Your task to perform on an android device: Show me the alarms in the clock app Image 0: 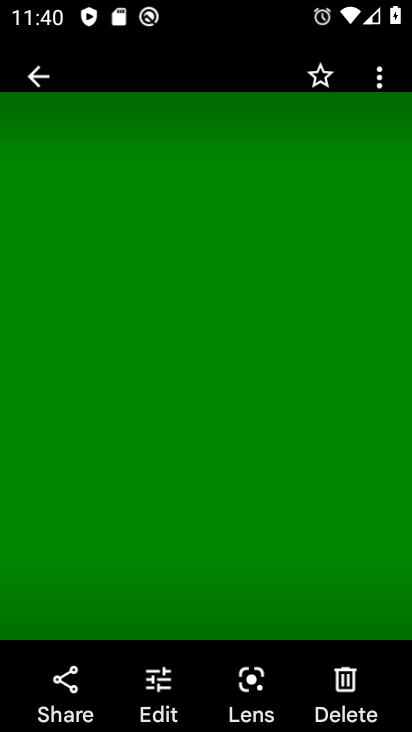
Step 0: press home button
Your task to perform on an android device: Show me the alarms in the clock app Image 1: 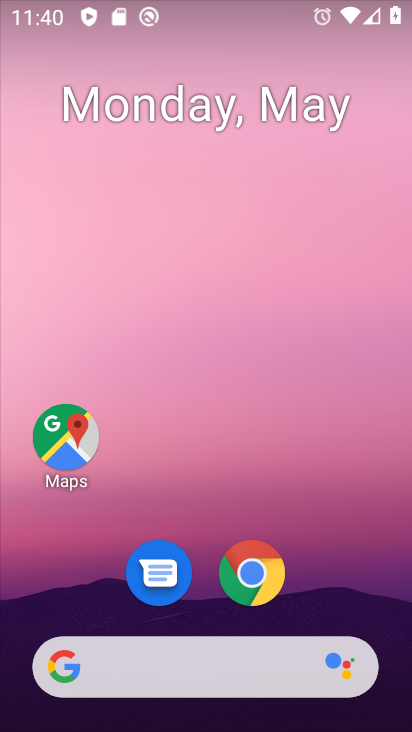
Step 1: drag from (140, 703) to (234, 40)
Your task to perform on an android device: Show me the alarms in the clock app Image 2: 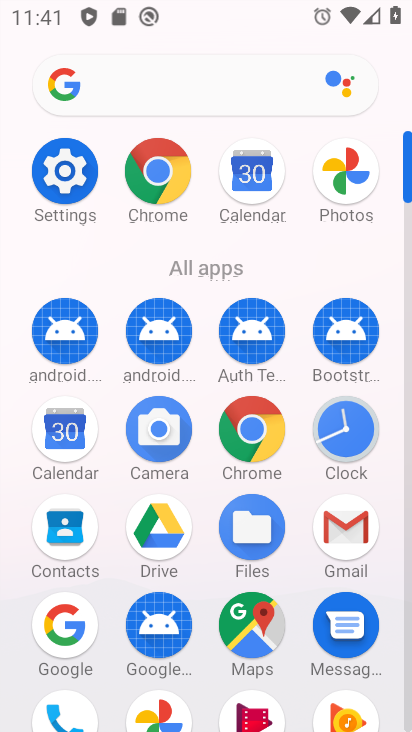
Step 2: click (336, 440)
Your task to perform on an android device: Show me the alarms in the clock app Image 3: 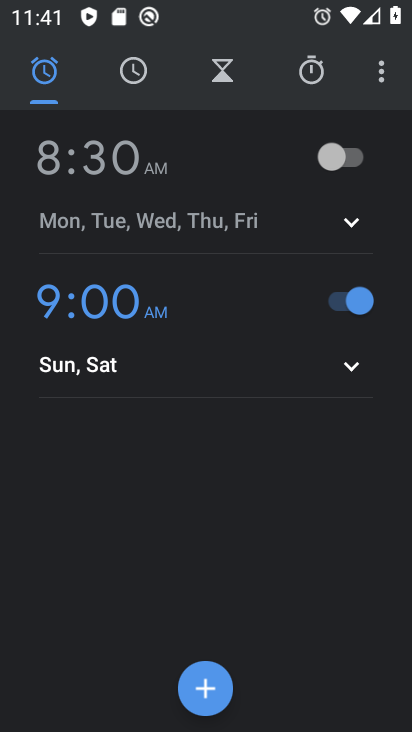
Step 3: task complete